Your task to perform on an android device: Open the Play Movies app and select the watchlist tab. Image 0: 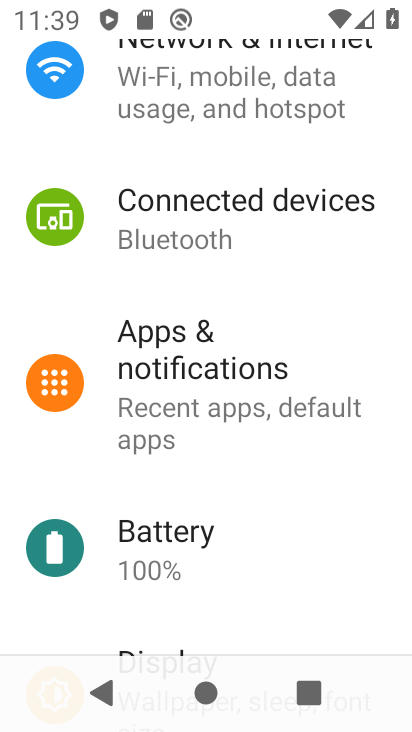
Step 0: press home button
Your task to perform on an android device: Open the Play Movies app and select the watchlist tab. Image 1: 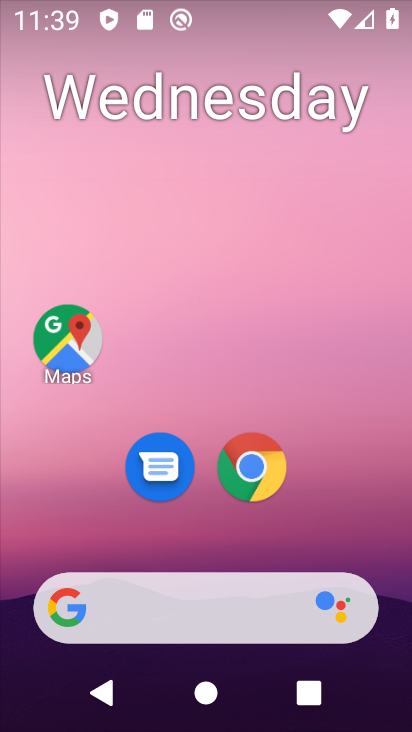
Step 1: drag from (165, 605) to (267, 259)
Your task to perform on an android device: Open the Play Movies app and select the watchlist tab. Image 2: 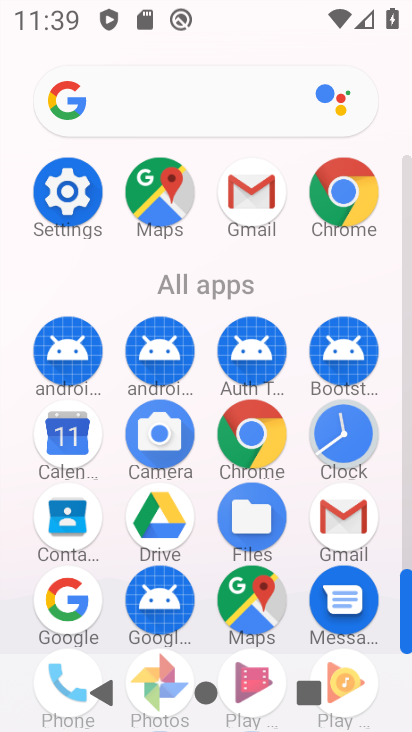
Step 2: drag from (215, 617) to (317, 298)
Your task to perform on an android device: Open the Play Movies app and select the watchlist tab. Image 3: 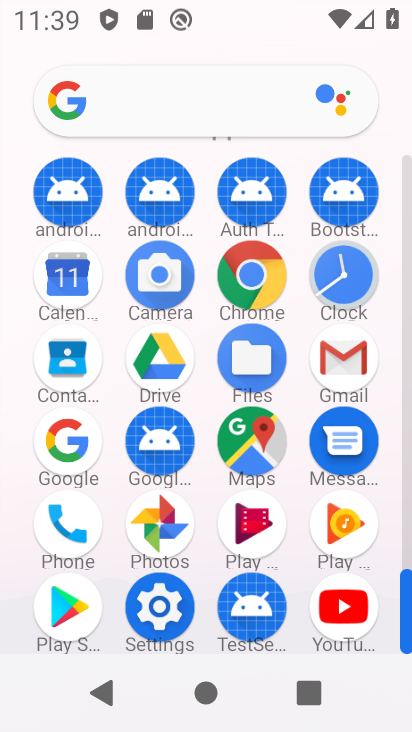
Step 3: click (241, 518)
Your task to perform on an android device: Open the Play Movies app and select the watchlist tab. Image 4: 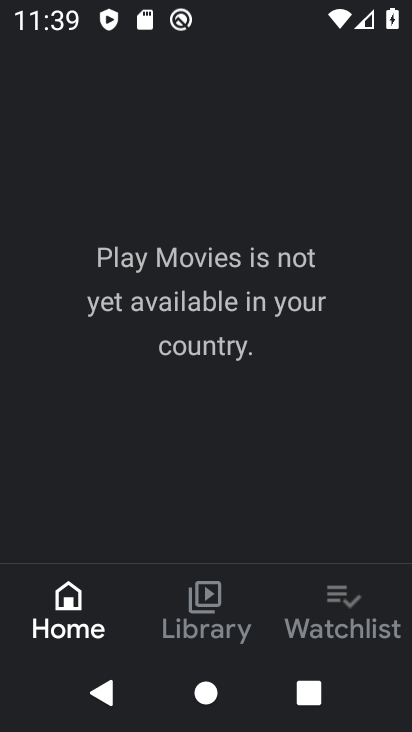
Step 4: click (326, 616)
Your task to perform on an android device: Open the Play Movies app and select the watchlist tab. Image 5: 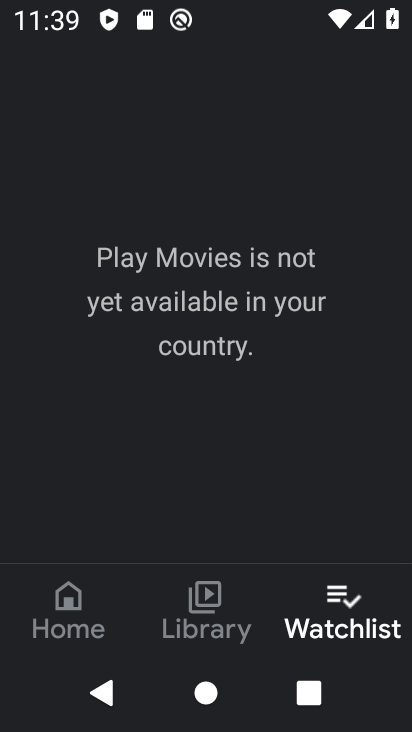
Step 5: task complete